Your task to perform on an android device: See recent photos Image 0: 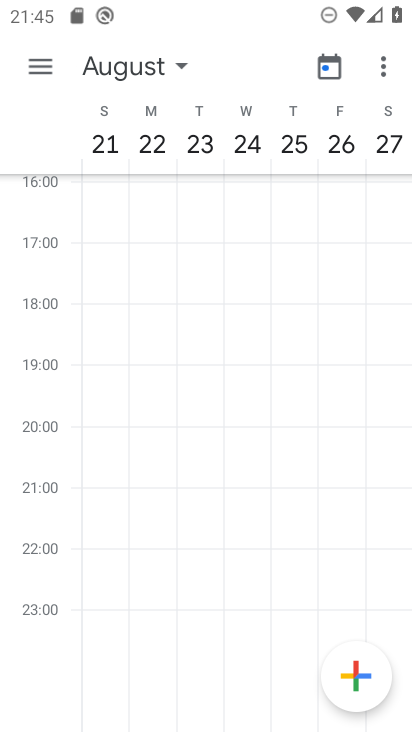
Step 0: press home button
Your task to perform on an android device: See recent photos Image 1: 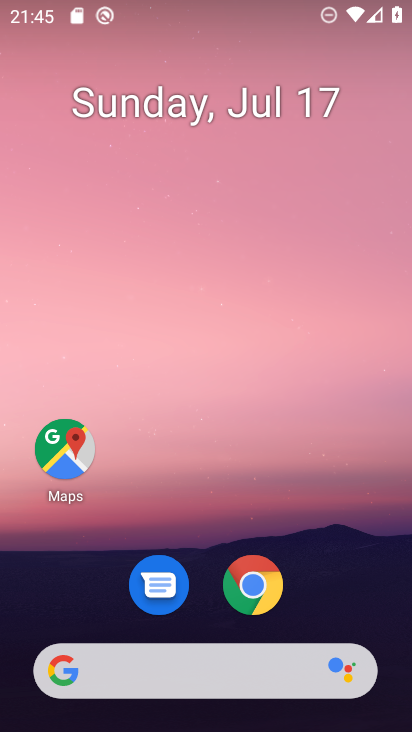
Step 1: drag from (210, 679) to (227, 27)
Your task to perform on an android device: See recent photos Image 2: 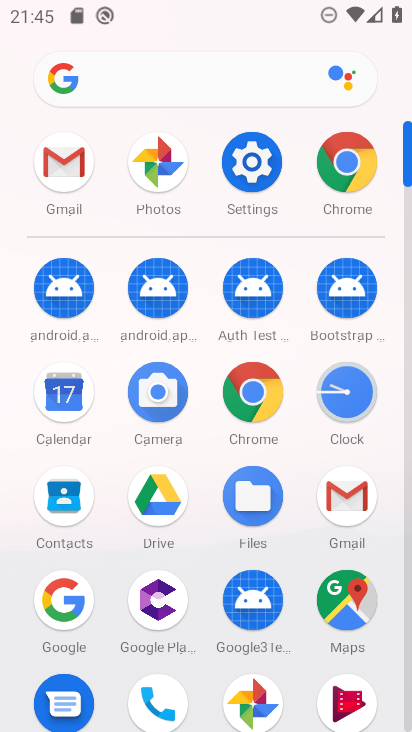
Step 2: drag from (204, 634) to (218, 210)
Your task to perform on an android device: See recent photos Image 3: 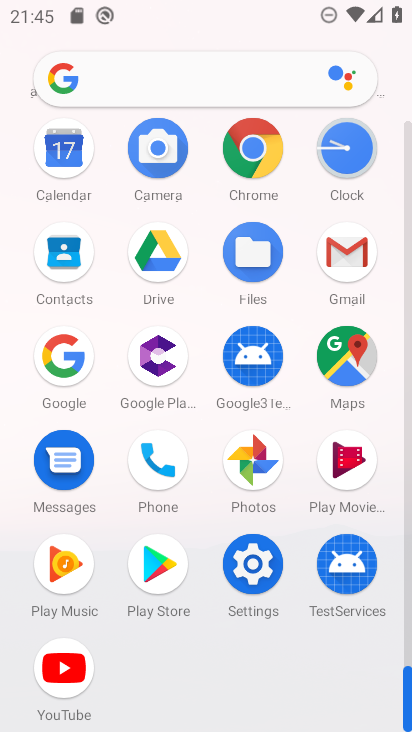
Step 3: click (255, 469)
Your task to perform on an android device: See recent photos Image 4: 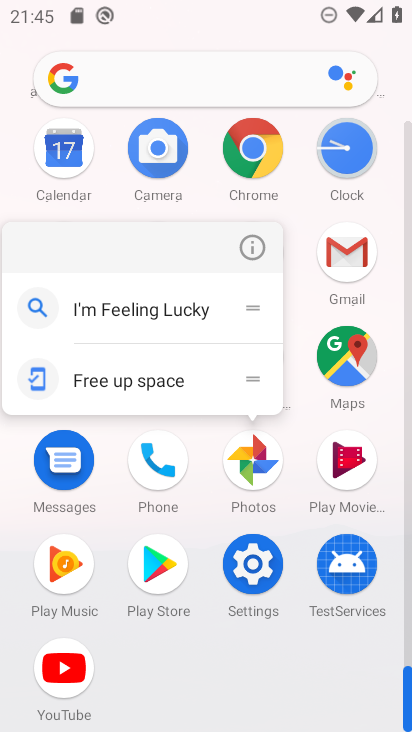
Step 4: click (248, 462)
Your task to perform on an android device: See recent photos Image 5: 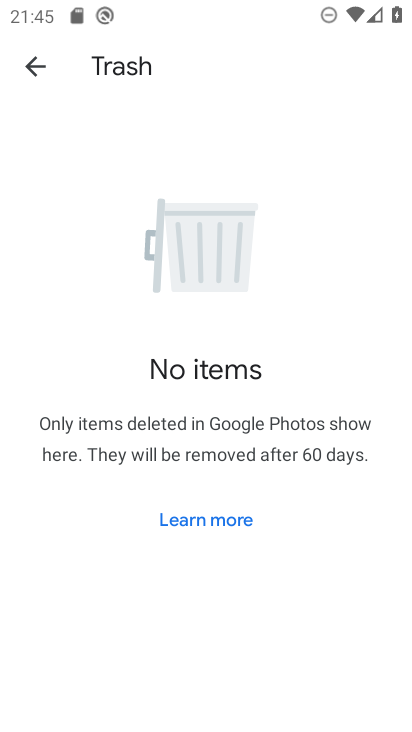
Step 5: click (37, 66)
Your task to perform on an android device: See recent photos Image 6: 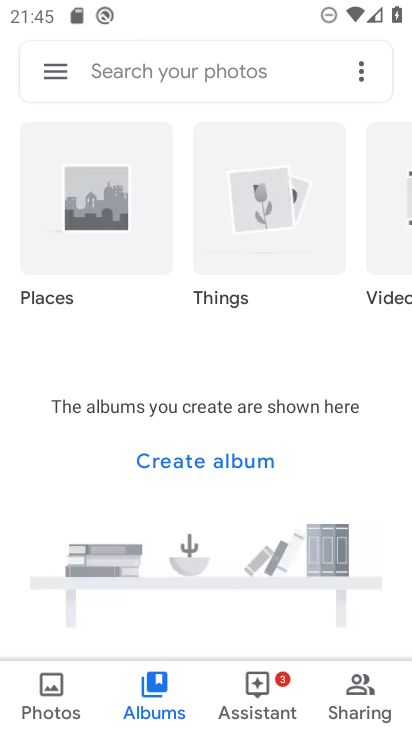
Step 6: click (354, 707)
Your task to perform on an android device: See recent photos Image 7: 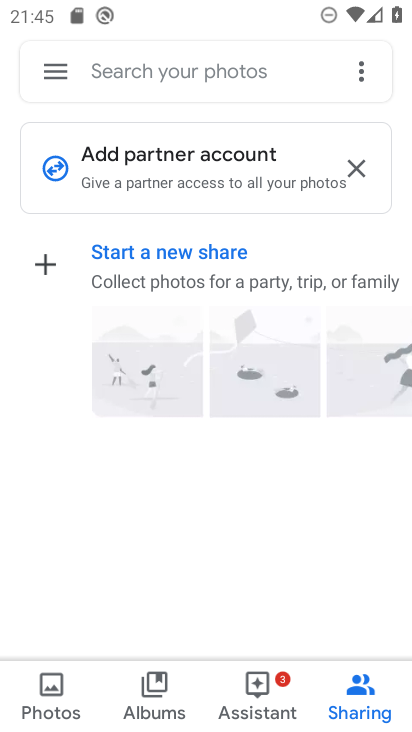
Step 7: click (165, 697)
Your task to perform on an android device: See recent photos Image 8: 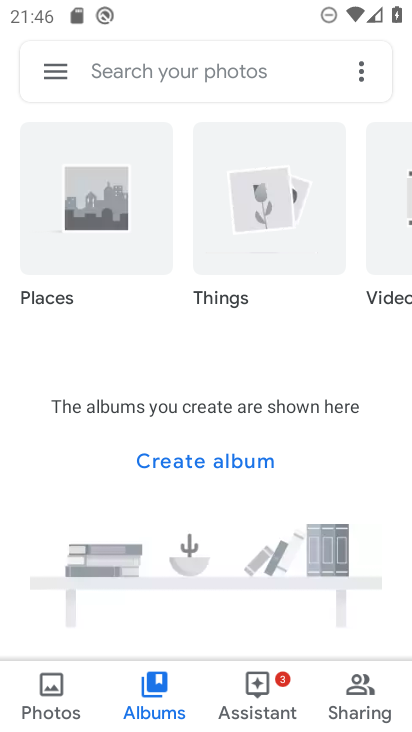
Step 8: task complete